Your task to perform on an android device: Search for the new ikea dresser Image 0: 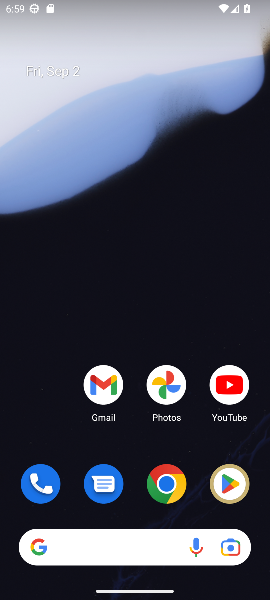
Step 0: click (171, 488)
Your task to perform on an android device: Search for the new ikea dresser Image 1: 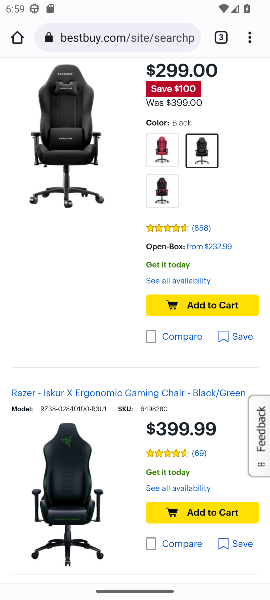
Step 1: click (108, 36)
Your task to perform on an android device: Search for the new ikea dresser Image 2: 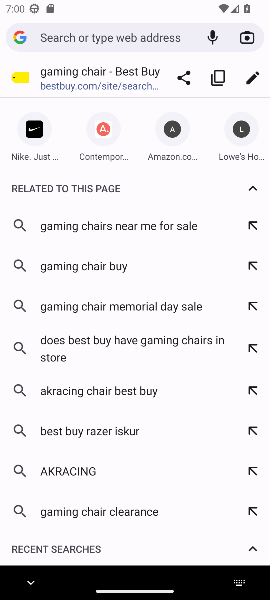
Step 2: type "new ikea dresser"
Your task to perform on an android device: Search for the new ikea dresser Image 3: 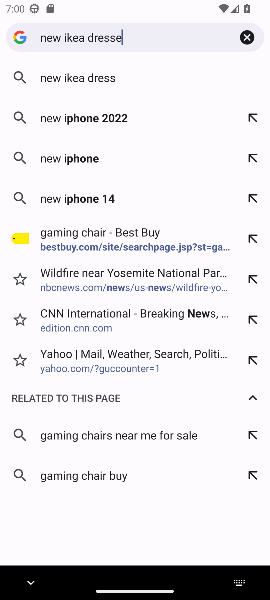
Step 3: press enter
Your task to perform on an android device: Search for the new ikea dresser Image 4: 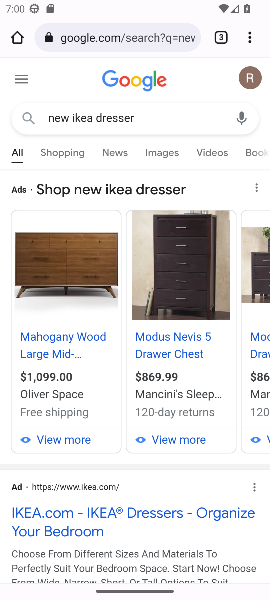
Step 4: task complete